Your task to perform on an android device: Open Google Chrome Image 0: 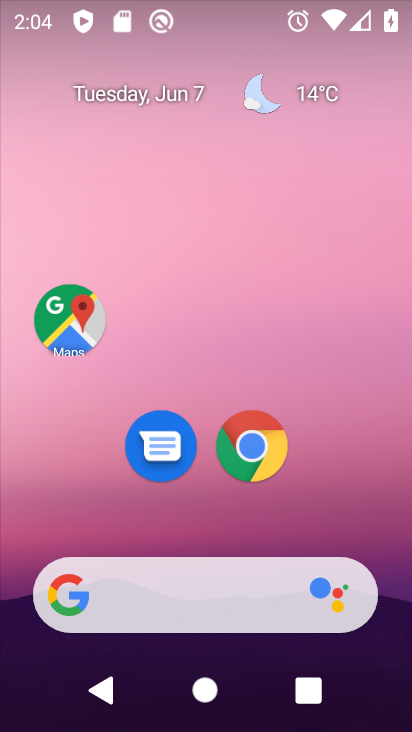
Step 0: click (254, 444)
Your task to perform on an android device: Open Google Chrome Image 1: 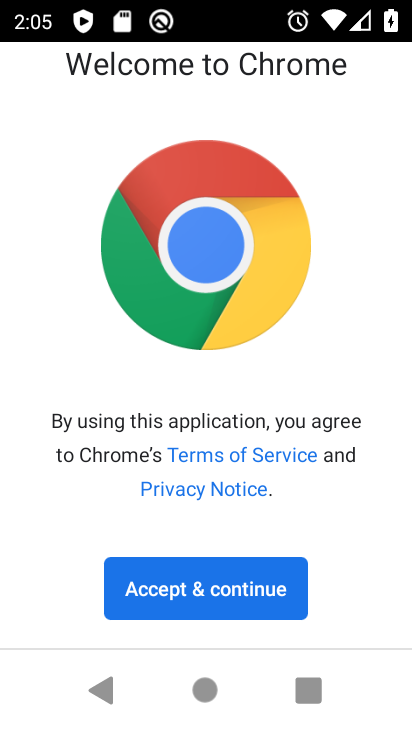
Step 1: click (192, 595)
Your task to perform on an android device: Open Google Chrome Image 2: 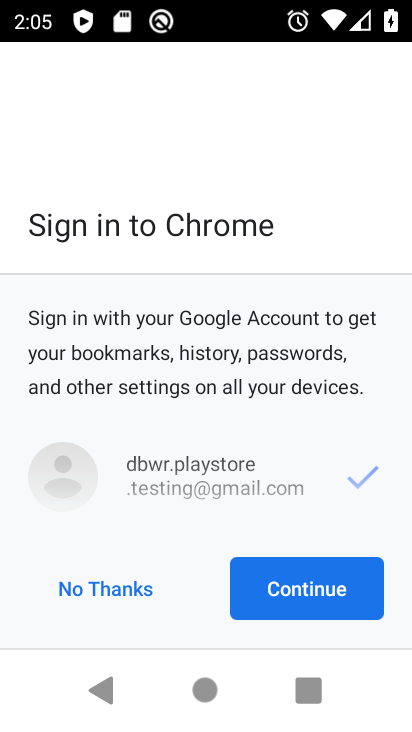
Step 2: click (345, 568)
Your task to perform on an android device: Open Google Chrome Image 3: 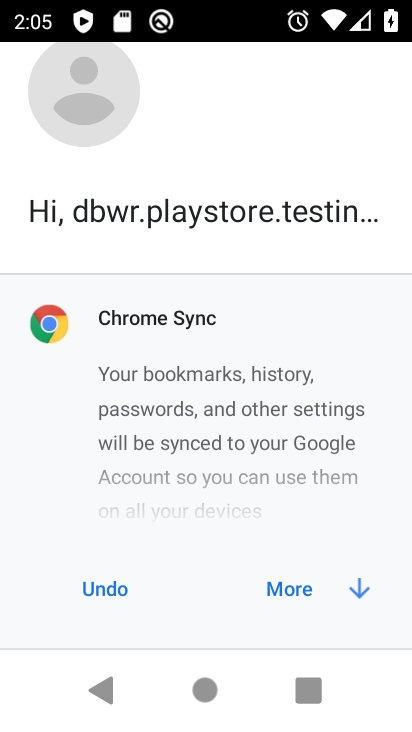
Step 3: click (277, 582)
Your task to perform on an android device: Open Google Chrome Image 4: 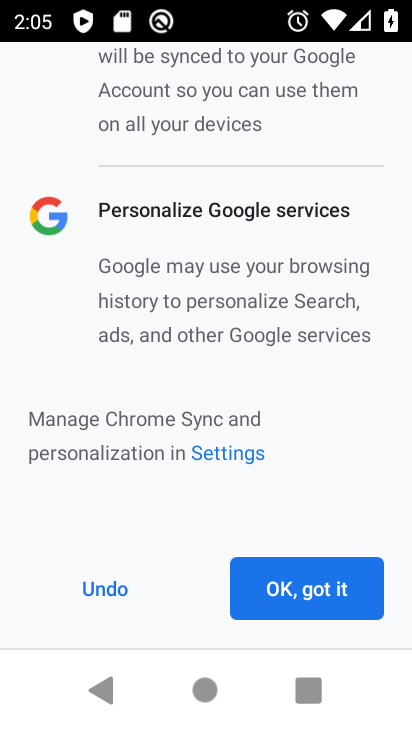
Step 4: click (306, 588)
Your task to perform on an android device: Open Google Chrome Image 5: 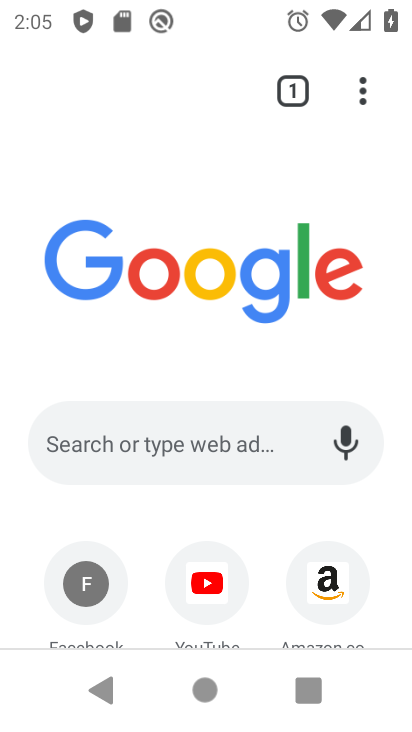
Step 5: task complete